Your task to perform on an android device: turn on the 12-hour format for clock Image 0: 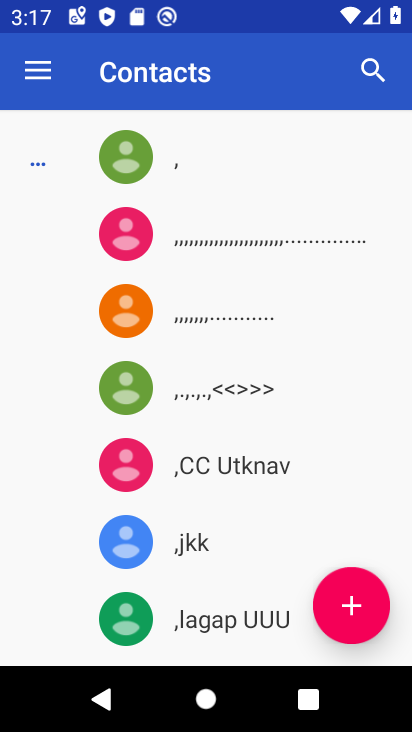
Step 0: press back button
Your task to perform on an android device: turn on the 12-hour format for clock Image 1: 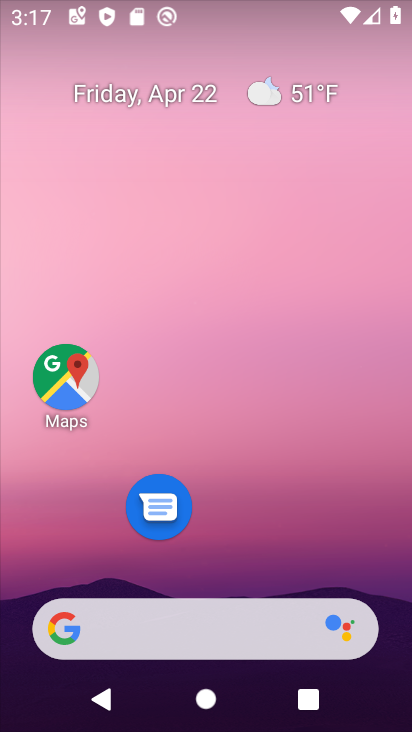
Step 1: drag from (175, 552) to (276, 74)
Your task to perform on an android device: turn on the 12-hour format for clock Image 2: 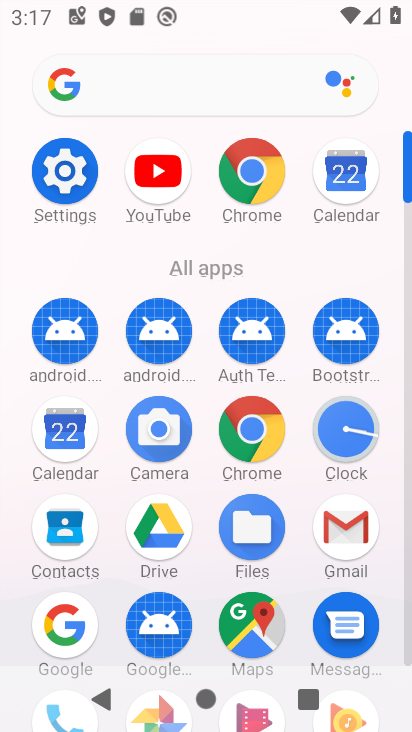
Step 2: click (338, 428)
Your task to perform on an android device: turn on the 12-hour format for clock Image 3: 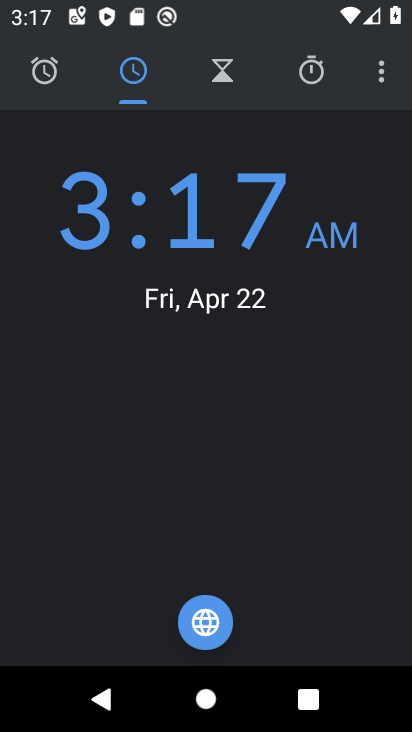
Step 3: click (383, 78)
Your task to perform on an android device: turn on the 12-hour format for clock Image 4: 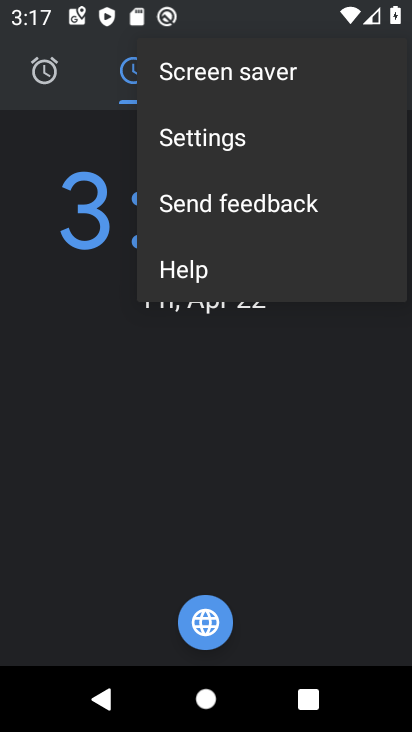
Step 4: click (231, 150)
Your task to perform on an android device: turn on the 12-hour format for clock Image 5: 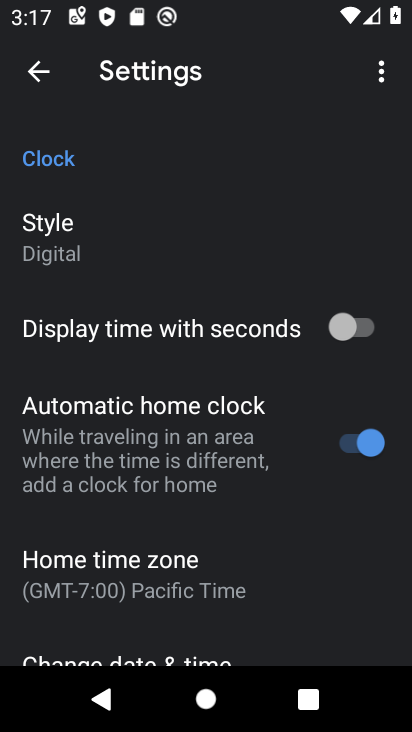
Step 5: drag from (179, 630) to (211, 261)
Your task to perform on an android device: turn on the 12-hour format for clock Image 6: 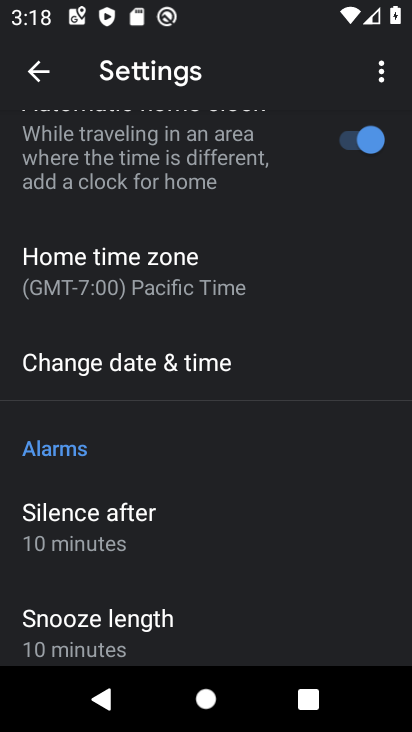
Step 6: click (230, 374)
Your task to perform on an android device: turn on the 12-hour format for clock Image 7: 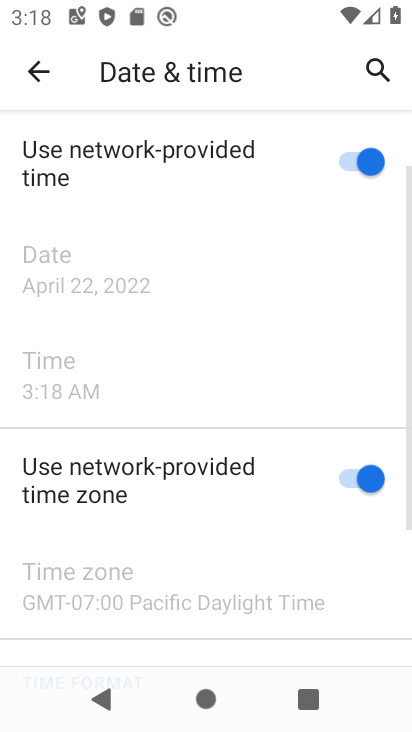
Step 7: task complete